Your task to perform on an android device: Go to Wikipedia Image 0: 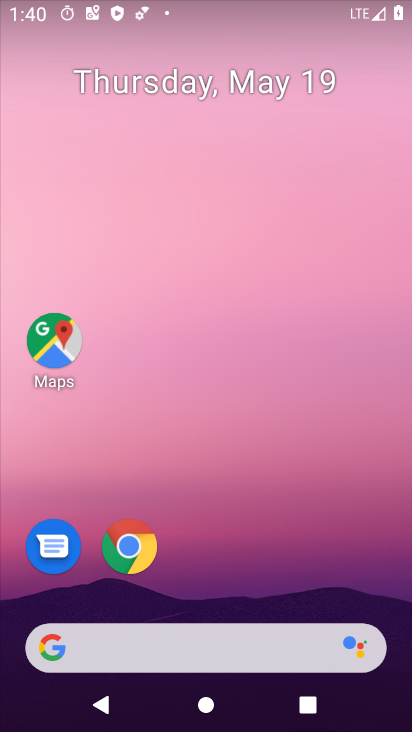
Step 0: click (127, 551)
Your task to perform on an android device: Go to Wikipedia Image 1: 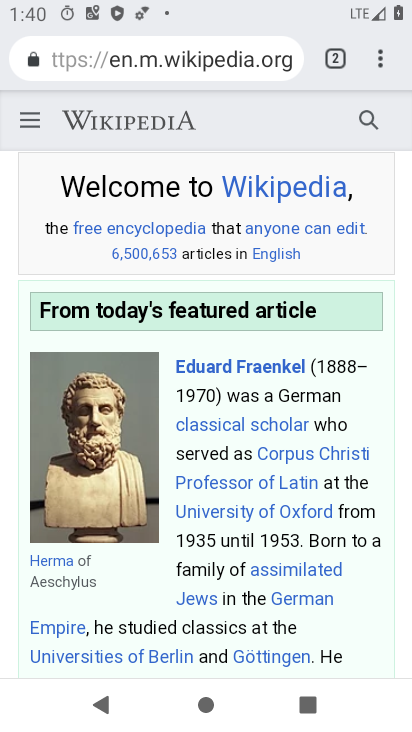
Step 1: task complete